Your task to perform on an android device: visit the assistant section in the google photos Image 0: 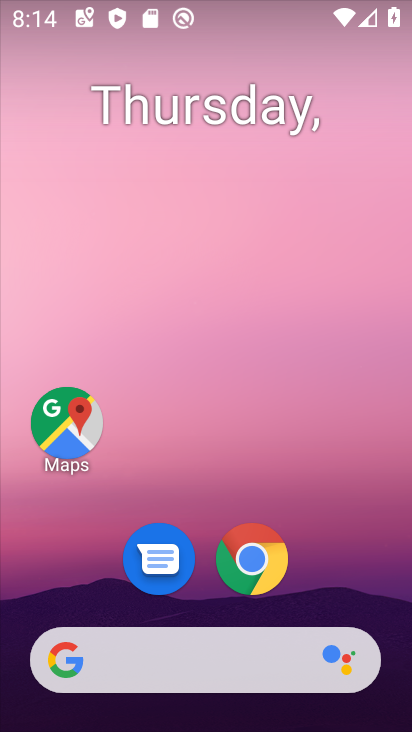
Step 0: drag from (194, 618) to (228, 2)
Your task to perform on an android device: visit the assistant section in the google photos Image 1: 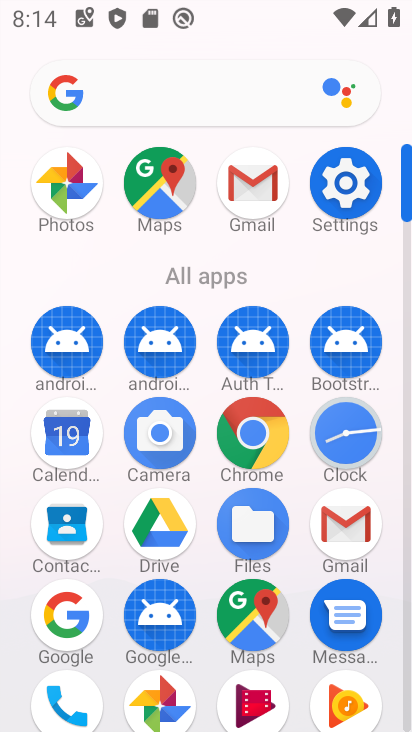
Step 1: click (163, 703)
Your task to perform on an android device: visit the assistant section in the google photos Image 2: 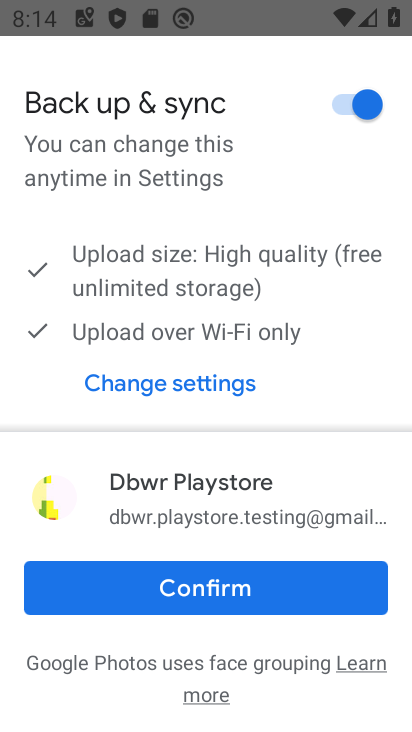
Step 2: click (197, 604)
Your task to perform on an android device: visit the assistant section in the google photos Image 3: 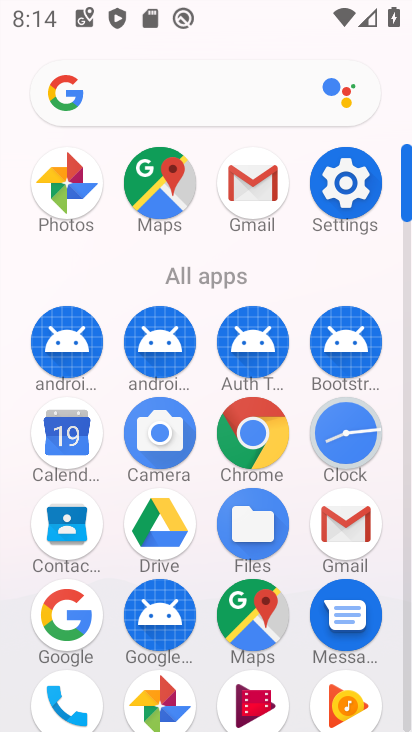
Step 3: click (165, 685)
Your task to perform on an android device: visit the assistant section in the google photos Image 4: 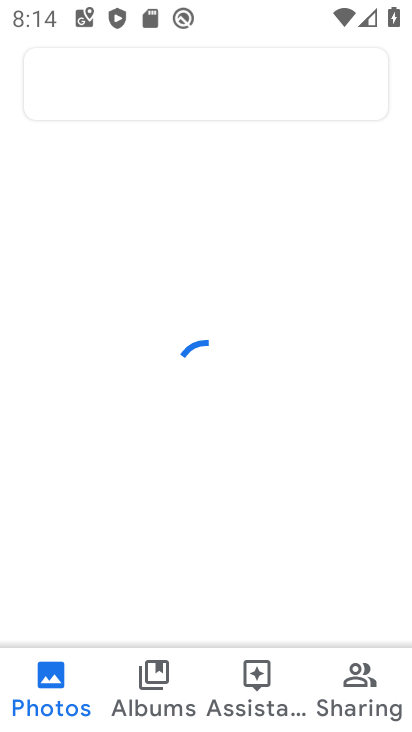
Step 4: click (231, 667)
Your task to perform on an android device: visit the assistant section in the google photos Image 5: 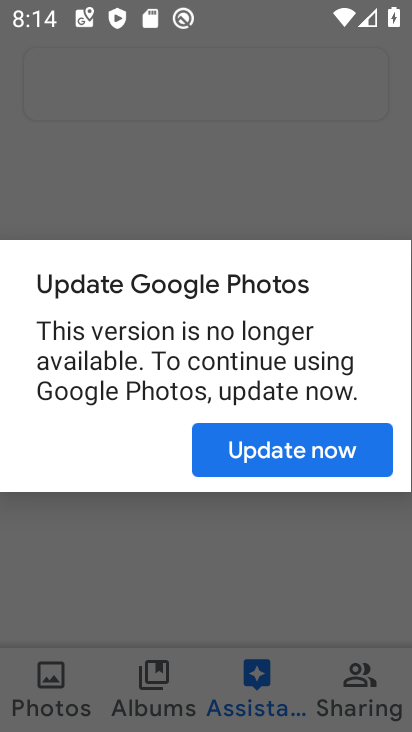
Step 5: task complete